Your task to perform on an android device: Open Google Chrome Image 0: 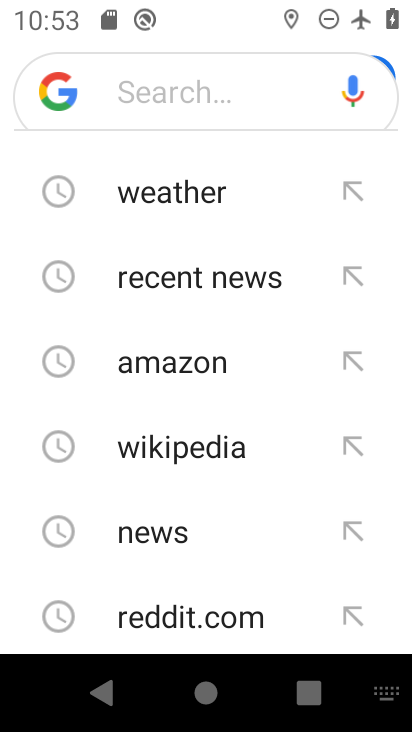
Step 0: press home button
Your task to perform on an android device: Open Google Chrome Image 1: 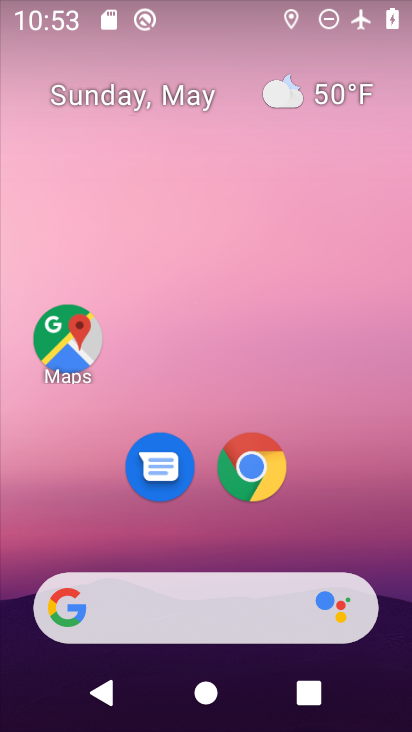
Step 1: click (245, 460)
Your task to perform on an android device: Open Google Chrome Image 2: 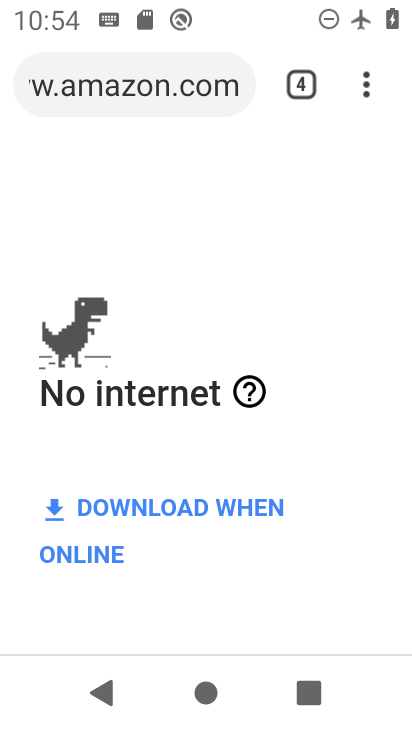
Step 2: task complete